Your task to perform on an android device: Open Wikipedia Image 0: 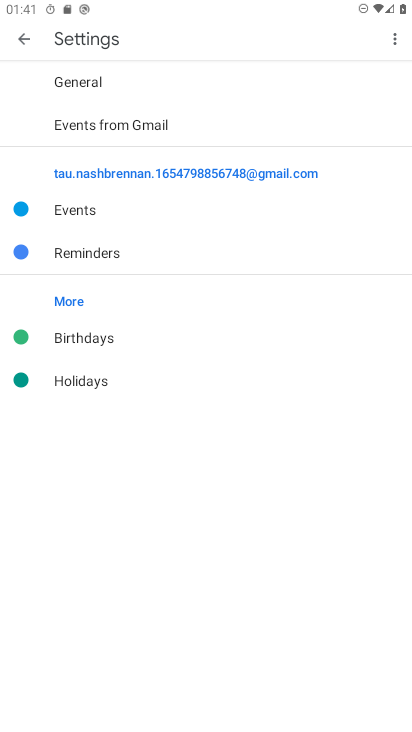
Step 0: press home button
Your task to perform on an android device: Open Wikipedia Image 1: 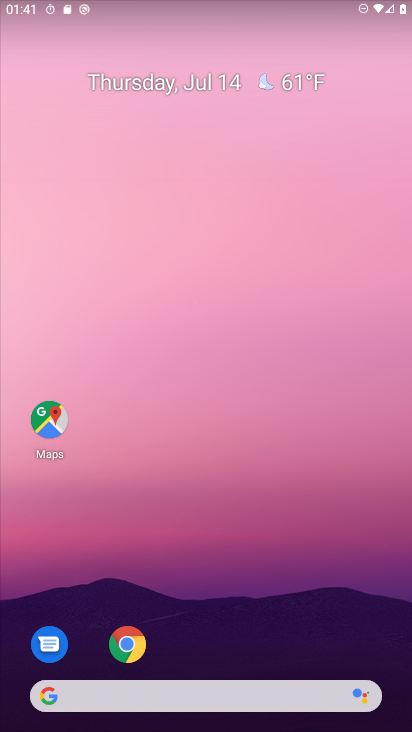
Step 1: drag from (261, 624) to (225, 93)
Your task to perform on an android device: Open Wikipedia Image 2: 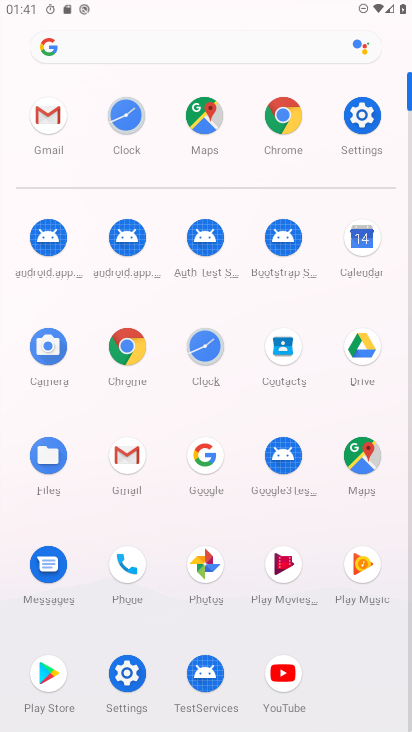
Step 2: click (285, 111)
Your task to perform on an android device: Open Wikipedia Image 3: 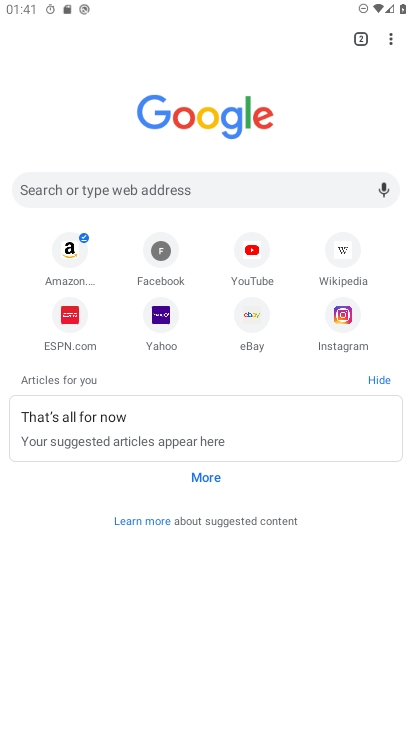
Step 3: click (334, 254)
Your task to perform on an android device: Open Wikipedia Image 4: 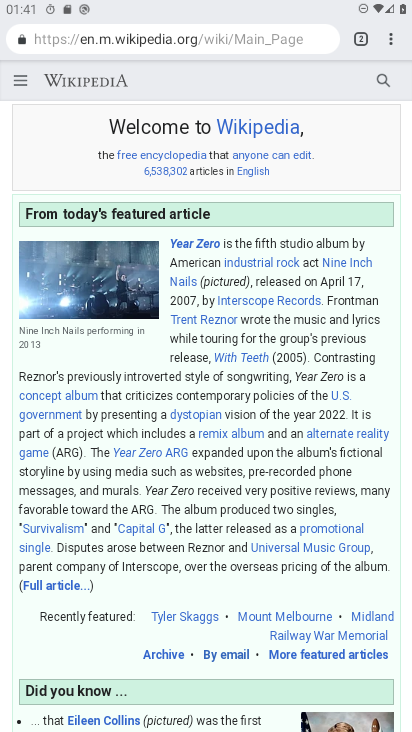
Step 4: task complete